Your task to perform on an android device: Find coffee shops on Maps Image 0: 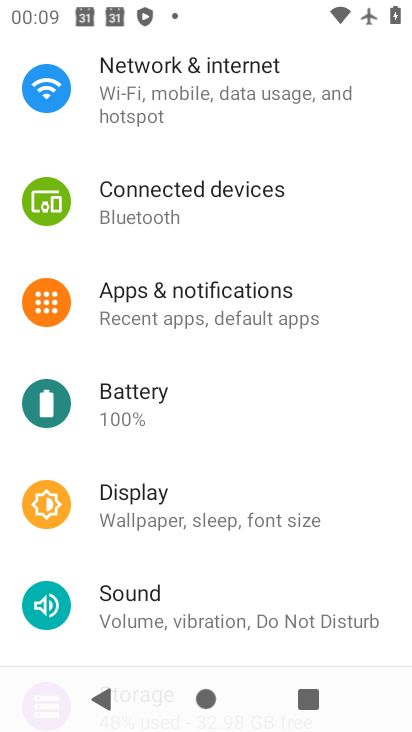
Step 0: press home button
Your task to perform on an android device: Find coffee shops on Maps Image 1: 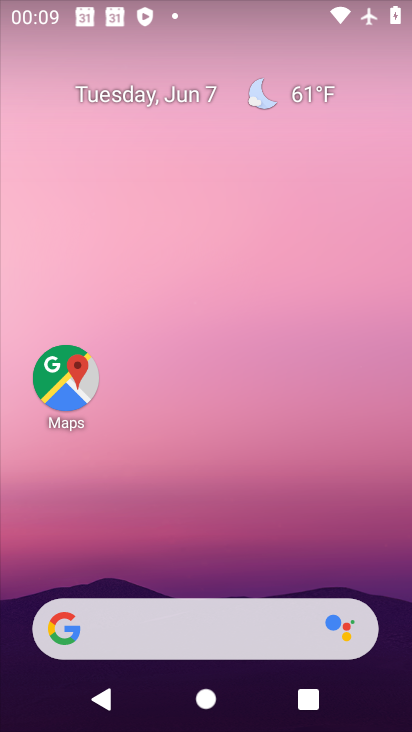
Step 1: click (68, 372)
Your task to perform on an android device: Find coffee shops on Maps Image 2: 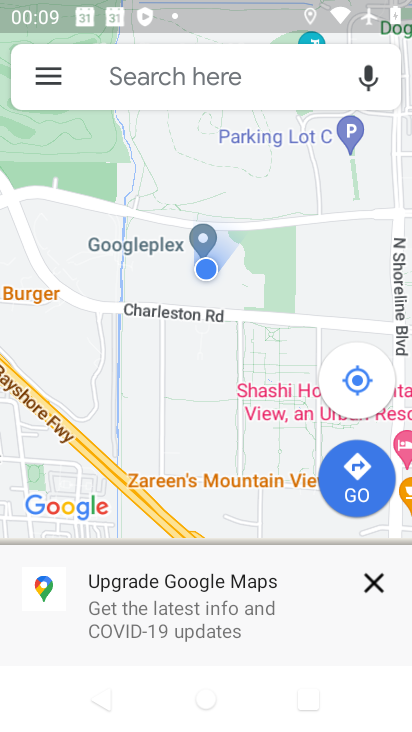
Step 2: click (55, 79)
Your task to perform on an android device: Find coffee shops on Maps Image 3: 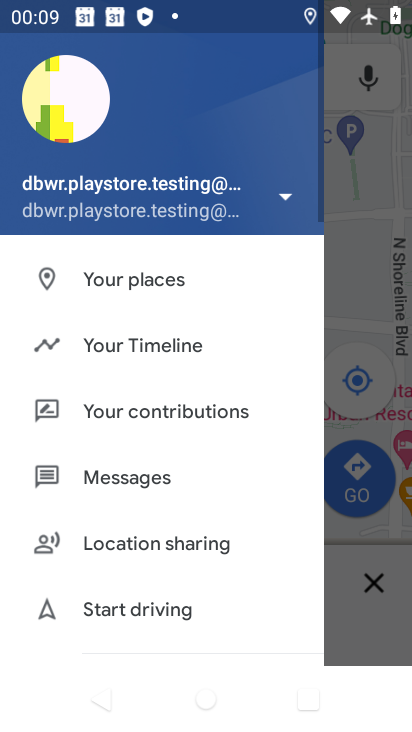
Step 3: drag from (199, 564) to (165, 174)
Your task to perform on an android device: Find coffee shops on Maps Image 4: 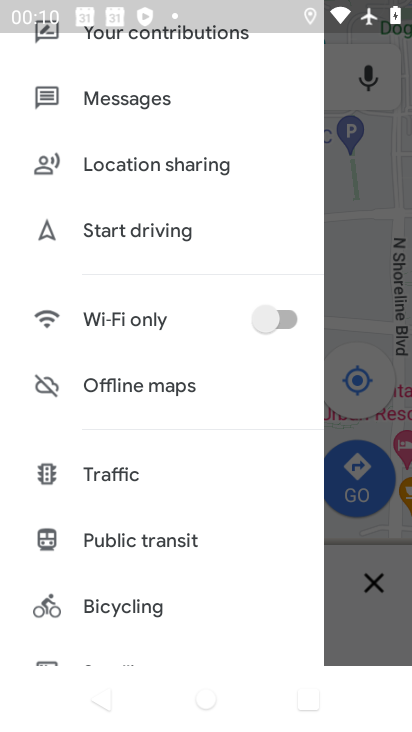
Step 4: drag from (196, 545) to (165, 183)
Your task to perform on an android device: Find coffee shops on Maps Image 5: 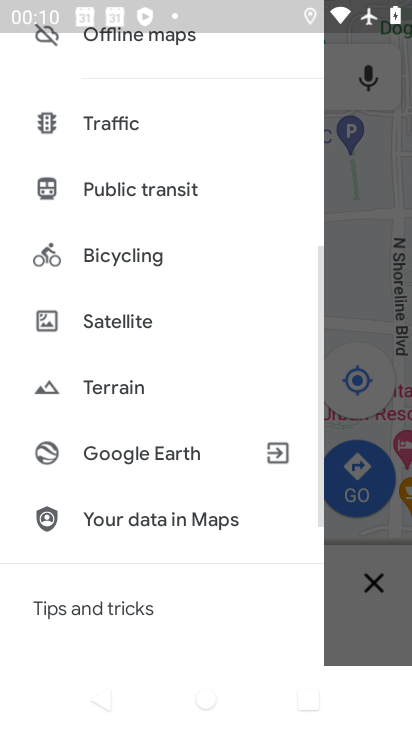
Step 5: drag from (150, 603) to (132, 297)
Your task to perform on an android device: Find coffee shops on Maps Image 6: 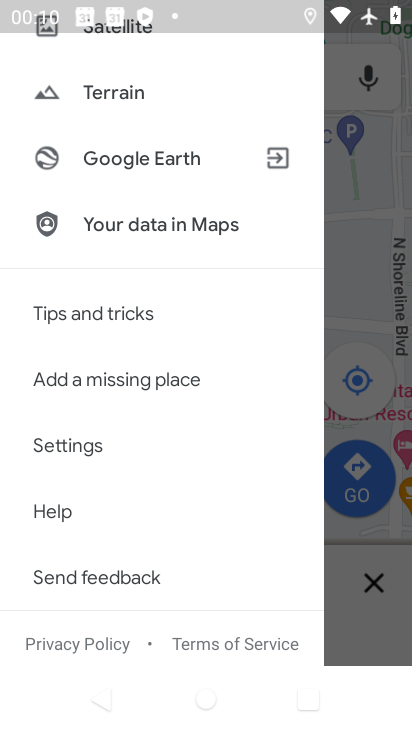
Step 6: click (337, 210)
Your task to perform on an android device: Find coffee shops on Maps Image 7: 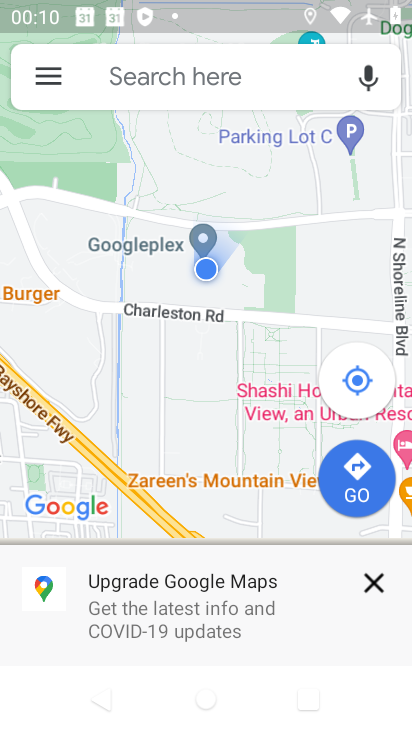
Step 7: click (191, 66)
Your task to perform on an android device: Find coffee shops on Maps Image 8: 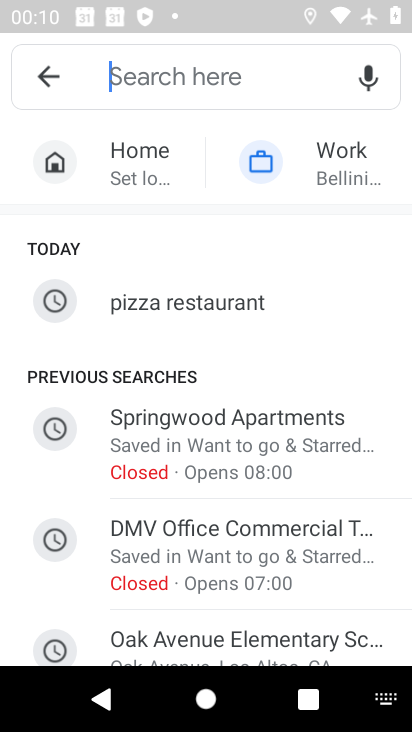
Step 8: drag from (231, 571) to (218, 132)
Your task to perform on an android device: Find coffee shops on Maps Image 9: 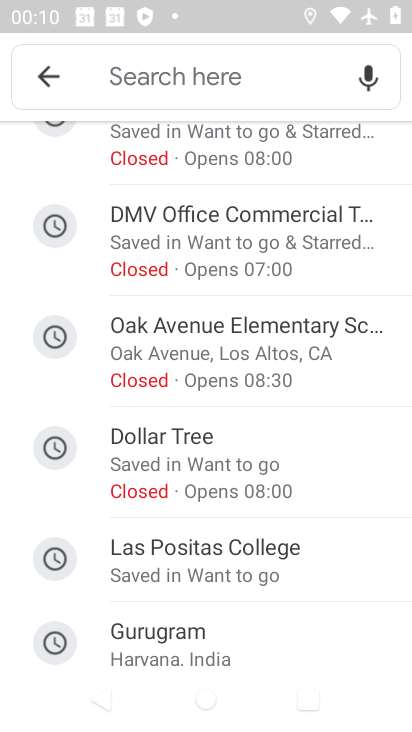
Step 9: click (211, 68)
Your task to perform on an android device: Find coffee shops on Maps Image 10: 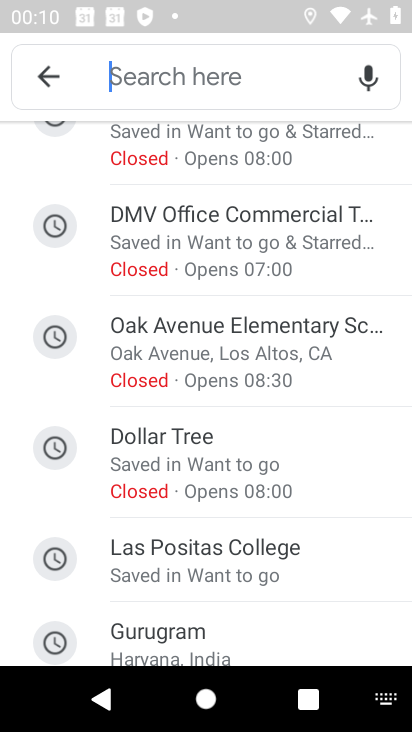
Step 10: type "coffee"
Your task to perform on an android device: Find coffee shops on Maps Image 11: 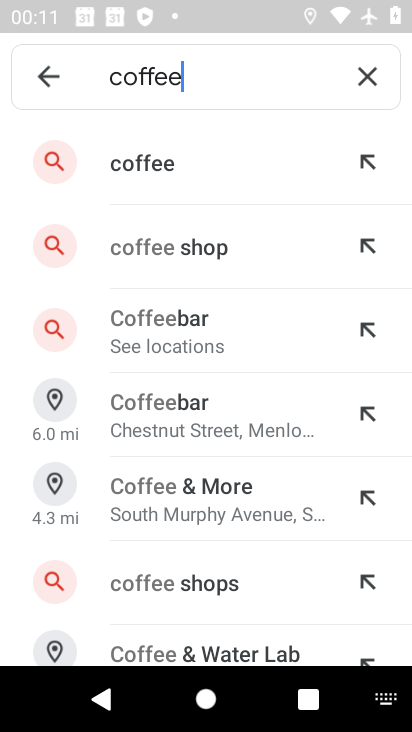
Step 11: click (173, 157)
Your task to perform on an android device: Find coffee shops on Maps Image 12: 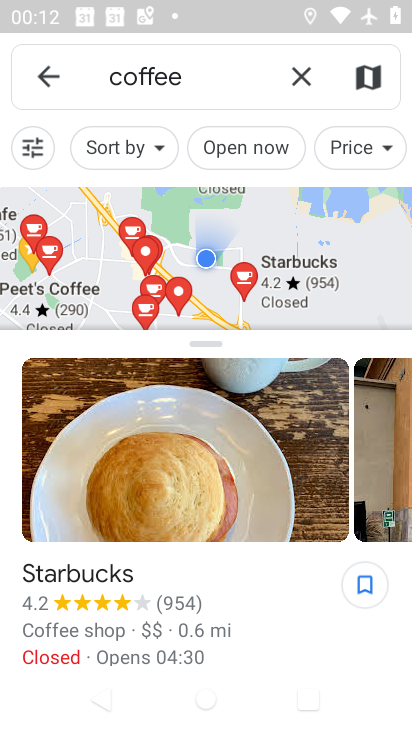
Step 12: task complete